Your task to perform on an android device: Search for sushi restaurants on Maps Image 0: 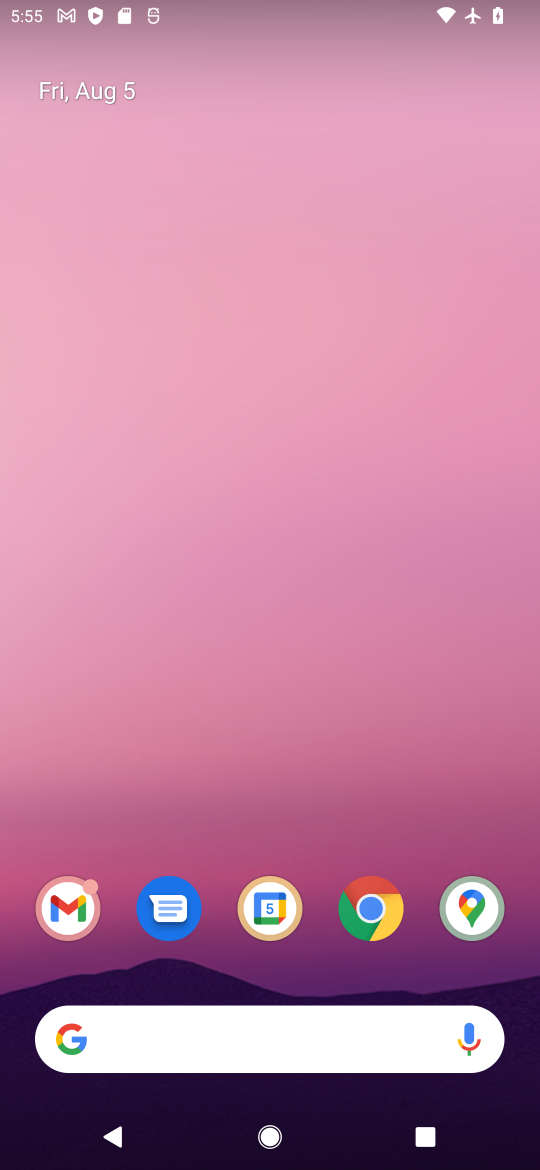
Step 0: drag from (240, 659) to (284, 228)
Your task to perform on an android device: Search for sushi restaurants on Maps Image 1: 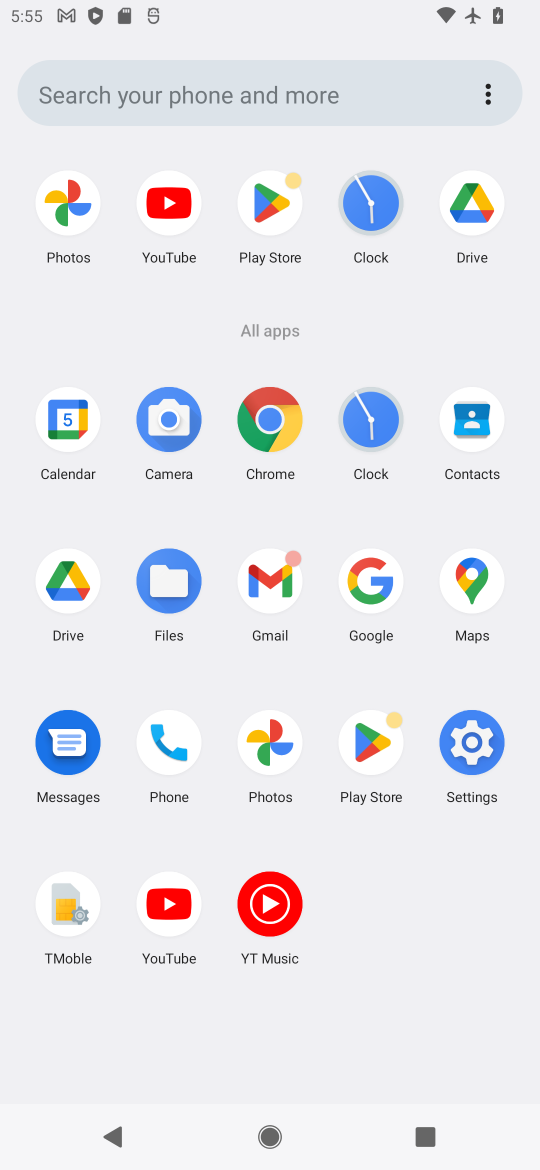
Step 1: click (470, 613)
Your task to perform on an android device: Search for sushi restaurants on Maps Image 2: 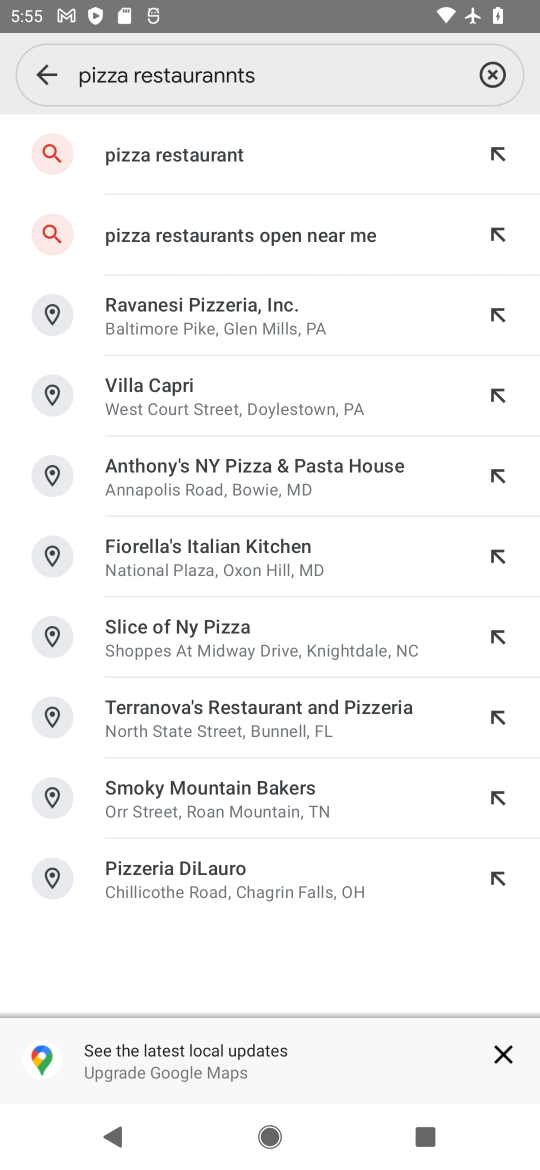
Step 2: click (492, 72)
Your task to perform on an android device: Search for sushi restaurants on Maps Image 3: 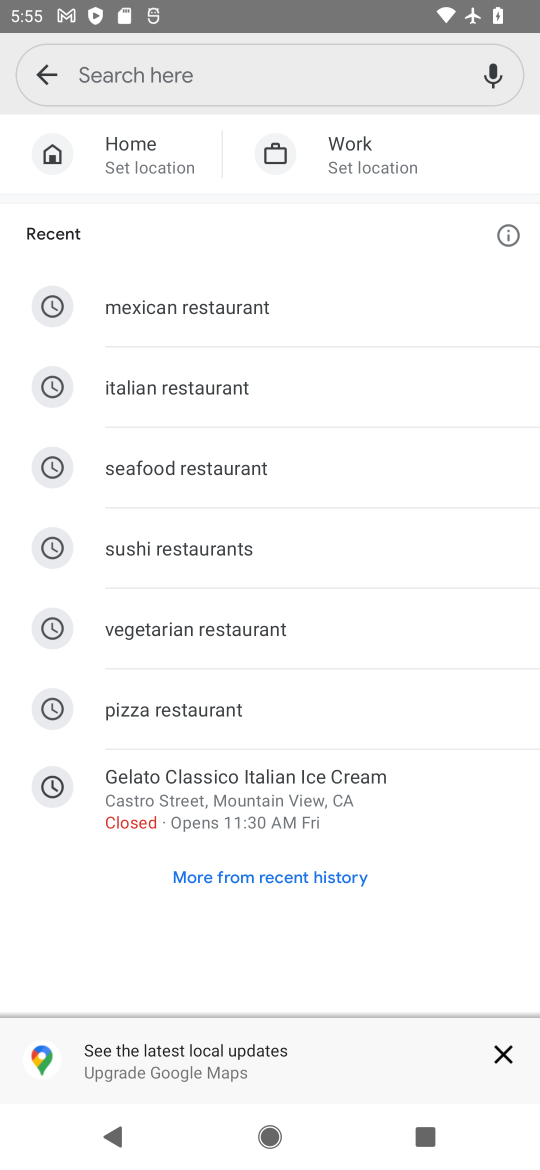
Step 3: click (266, 89)
Your task to perform on an android device: Search for sushi restaurants on Maps Image 4: 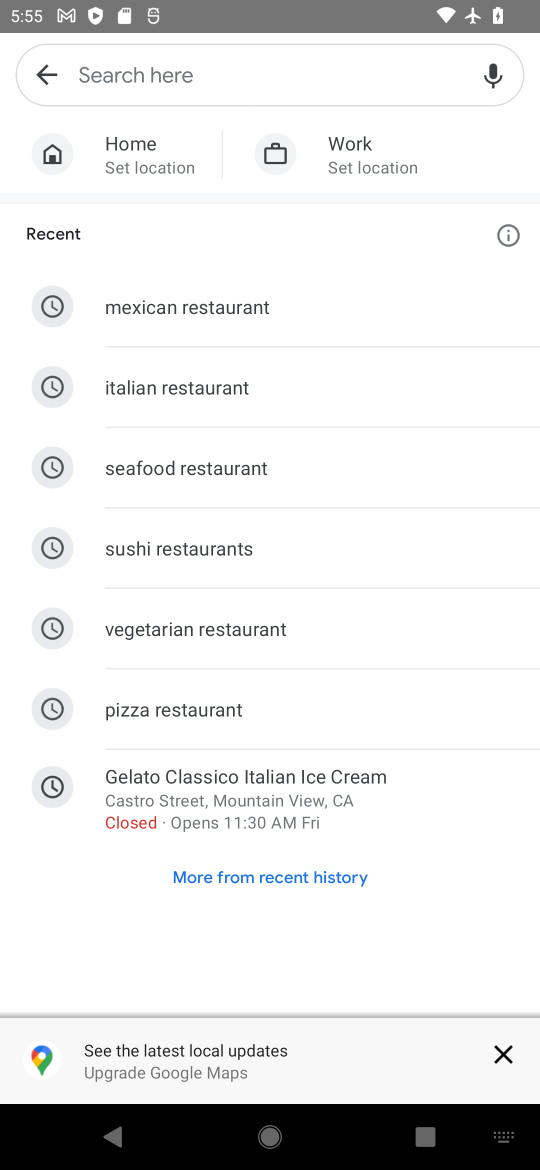
Step 4: click (144, 548)
Your task to perform on an android device: Search for sushi restaurants on Maps Image 5: 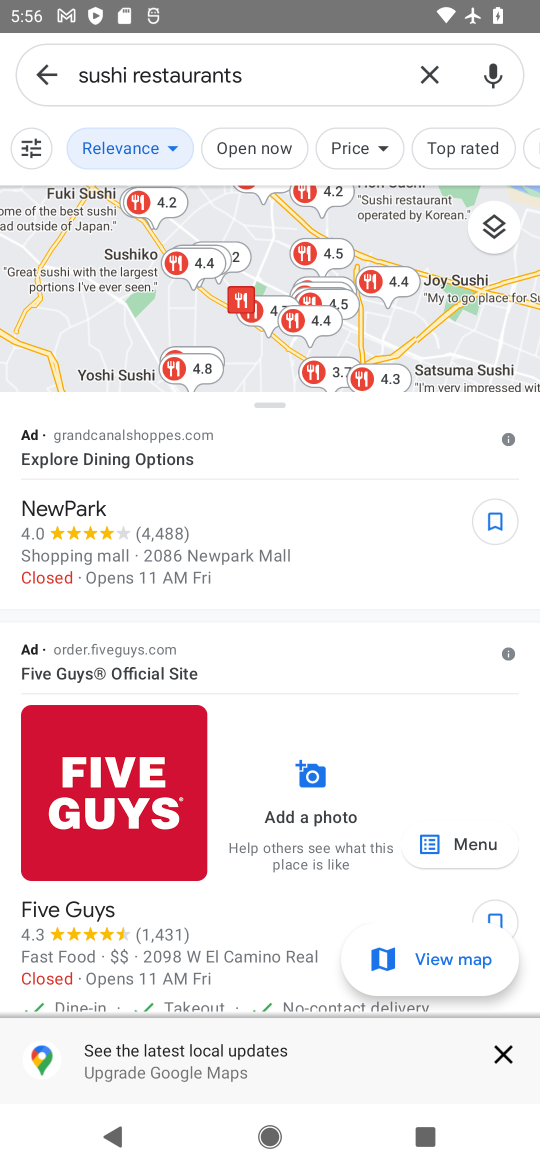
Step 5: task complete